Your task to perform on an android device: toggle notifications settings in the gmail app Image 0: 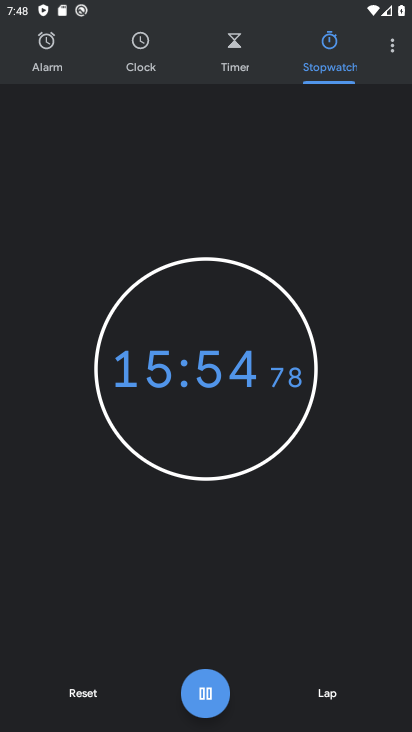
Step 0: press home button
Your task to perform on an android device: toggle notifications settings in the gmail app Image 1: 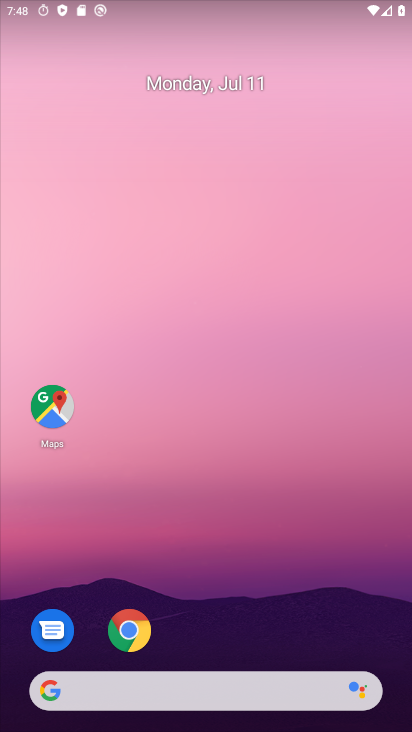
Step 1: drag from (124, 683) to (230, 315)
Your task to perform on an android device: toggle notifications settings in the gmail app Image 2: 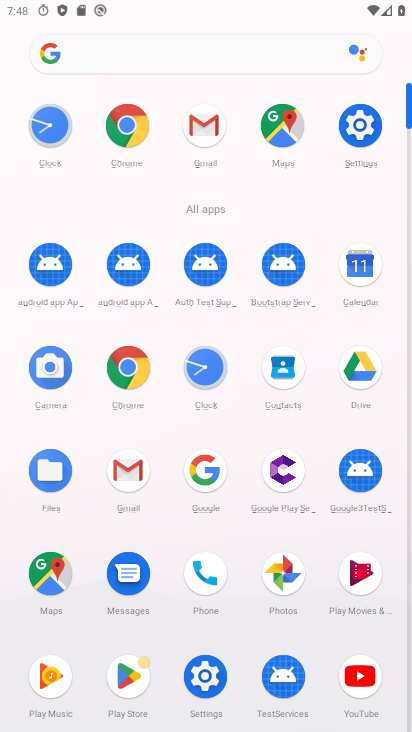
Step 2: click (130, 473)
Your task to perform on an android device: toggle notifications settings in the gmail app Image 3: 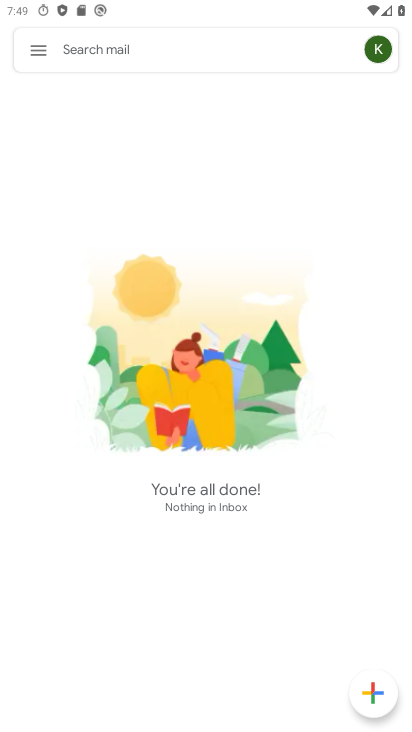
Step 3: click (39, 54)
Your task to perform on an android device: toggle notifications settings in the gmail app Image 4: 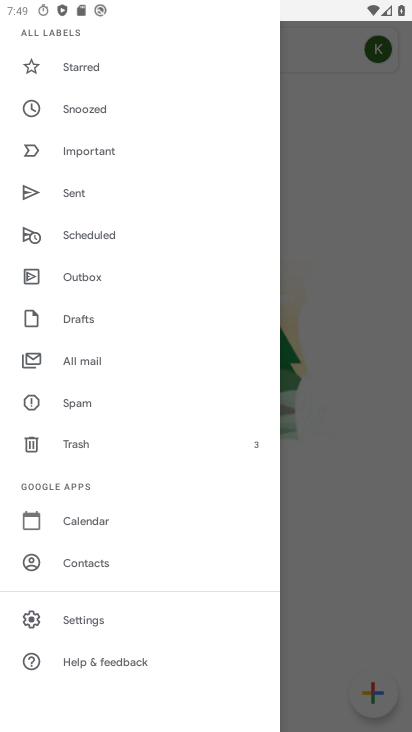
Step 4: click (92, 618)
Your task to perform on an android device: toggle notifications settings in the gmail app Image 5: 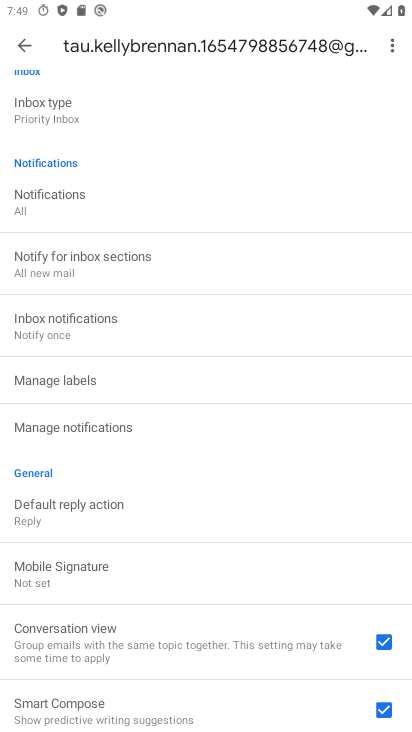
Step 5: click (39, 202)
Your task to perform on an android device: toggle notifications settings in the gmail app Image 6: 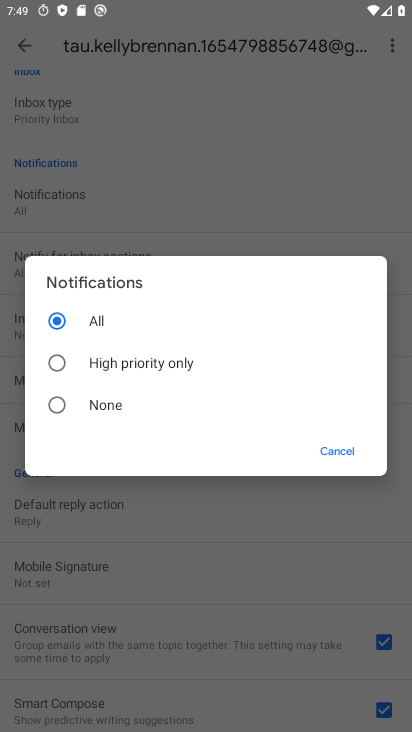
Step 6: click (55, 404)
Your task to perform on an android device: toggle notifications settings in the gmail app Image 7: 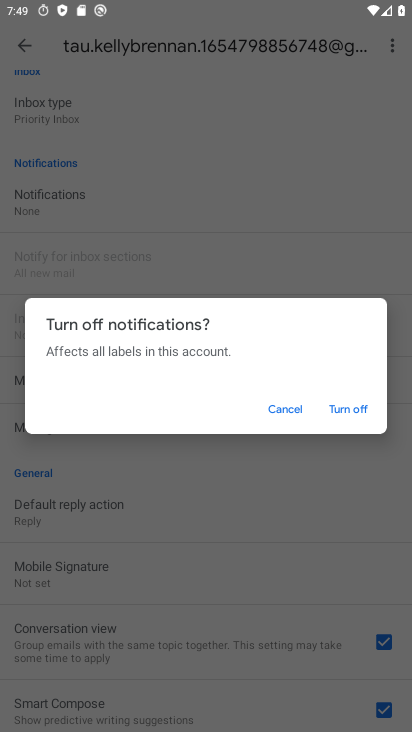
Step 7: click (355, 412)
Your task to perform on an android device: toggle notifications settings in the gmail app Image 8: 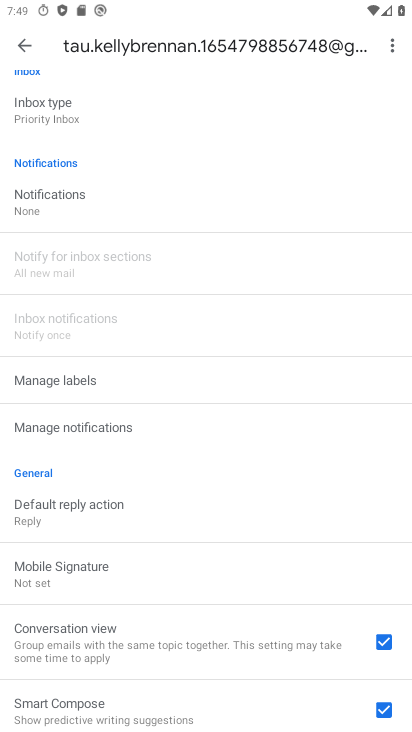
Step 8: task complete